Your task to perform on an android device: refresh tabs in the chrome app Image 0: 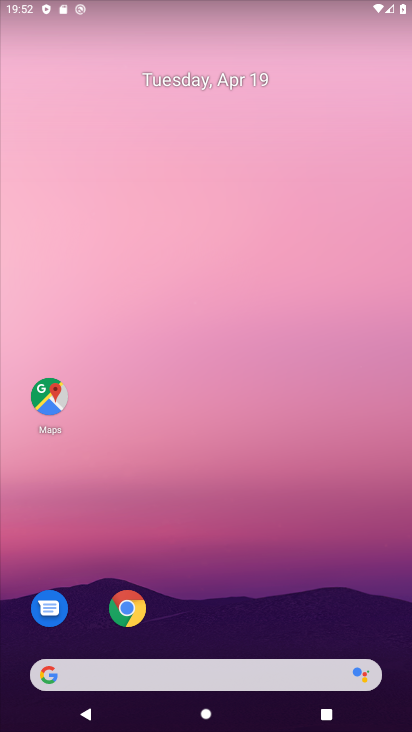
Step 0: click (140, 610)
Your task to perform on an android device: refresh tabs in the chrome app Image 1: 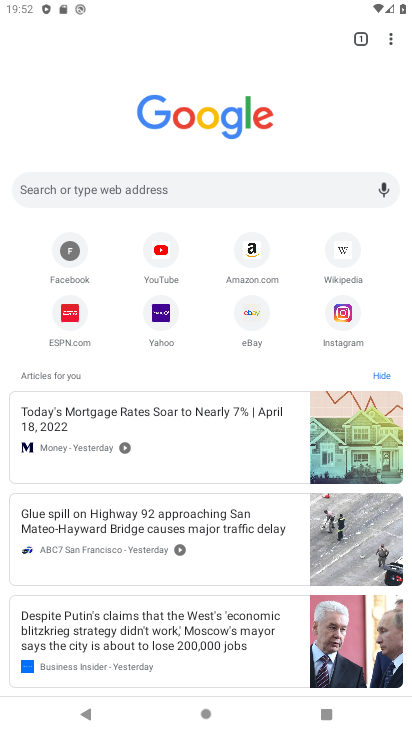
Step 1: click (390, 46)
Your task to perform on an android device: refresh tabs in the chrome app Image 2: 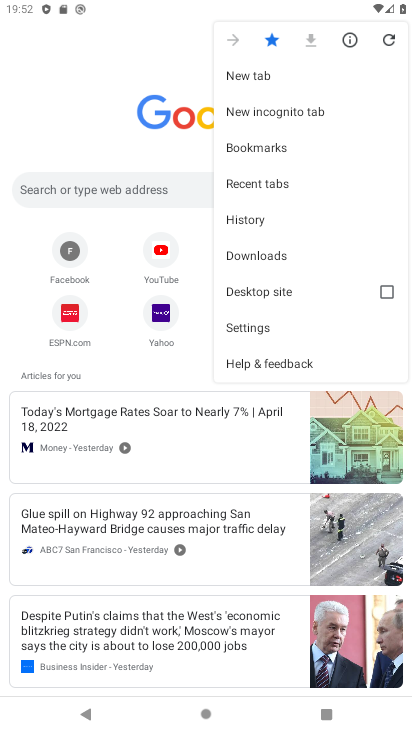
Step 2: click (392, 41)
Your task to perform on an android device: refresh tabs in the chrome app Image 3: 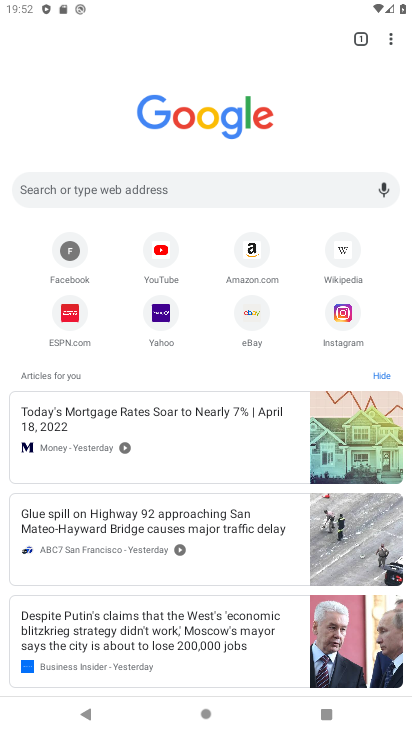
Step 3: task complete